Your task to perform on an android device: Open eBay Image 0: 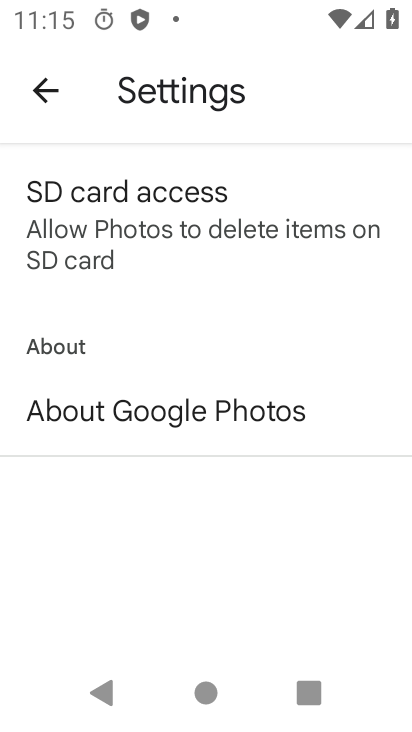
Step 0: press back button
Your task to perform on an android device: Open eBay Image 1: 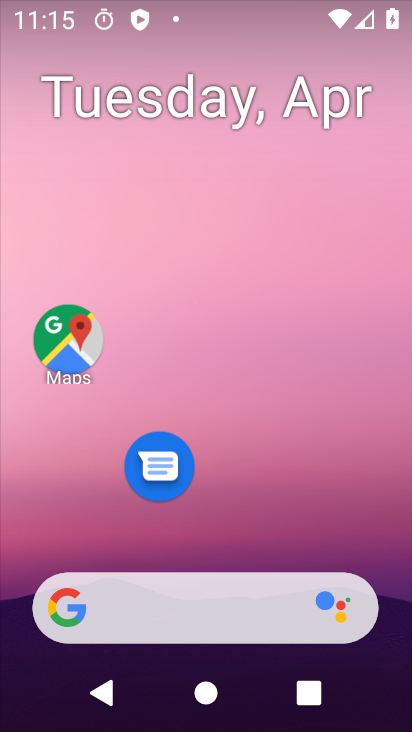
Step 1: drag from (287, 502) to (260, 168)
Your task to perform on an android device: Open eBay Image 2: 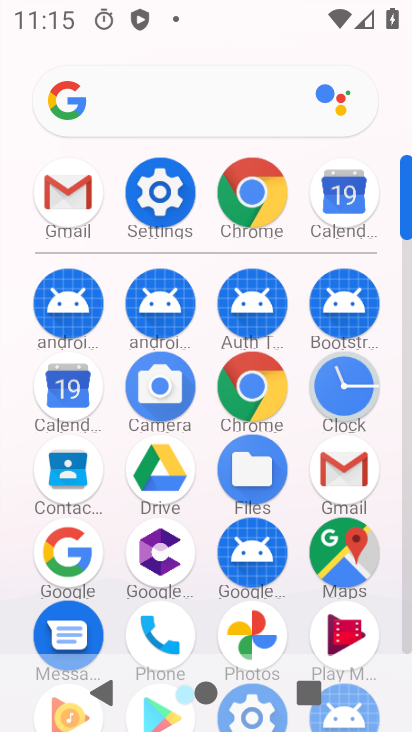
Step 2: click (251, 222)
Your task to perform on an android device: Open eBay Image 3: 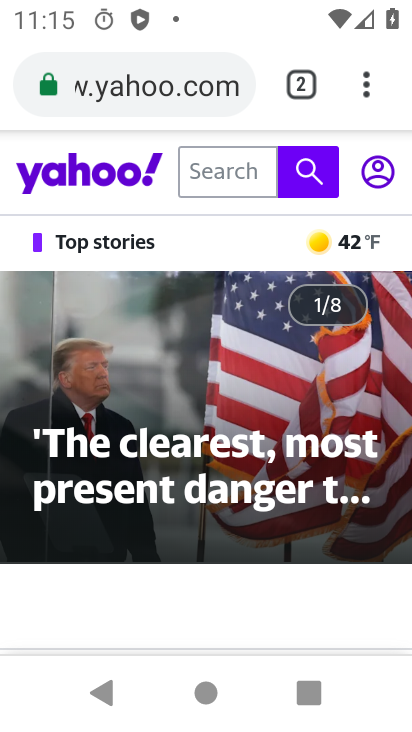
Step 3: click (161, 91)
Your task to perform on an android device: Open eBay Image 4: 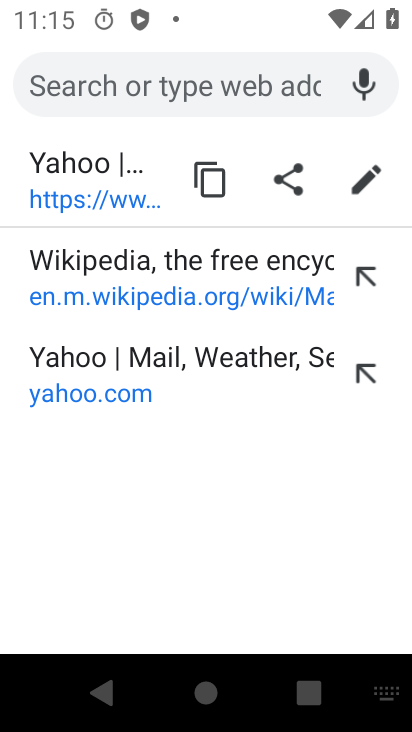
Step 4: type "ebay.com"
Your task to perform on an android device: Open eBay Image 5: 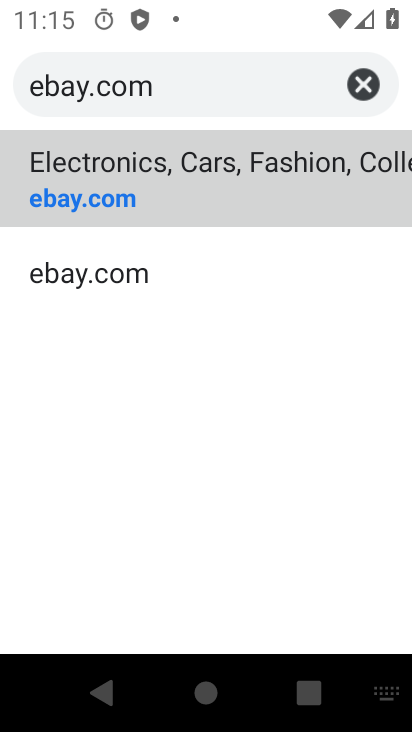
Step 5: click (188, 195)
Your task to perform on an android device: Open eBay Image 6: 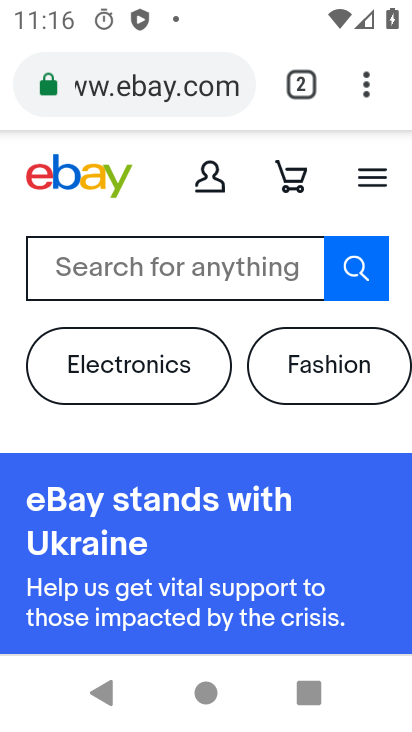
Step 6: task complete